Your task to perform on an android device: move a message to another label in the gmail app Image 0: 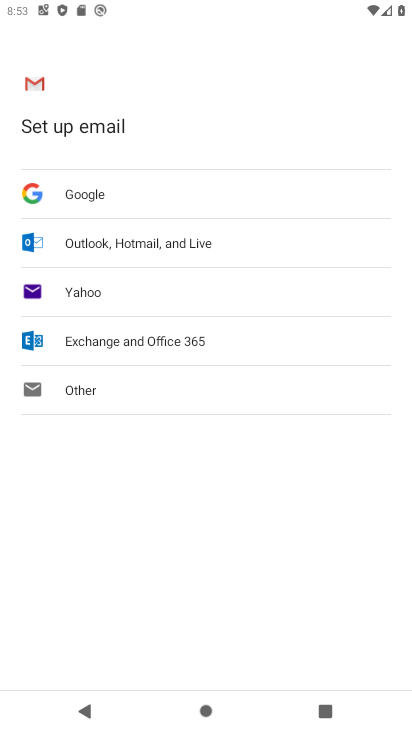
Step 0: press home button
Your task to perform on an android device: move a message to another label in the gmail app Image 1: 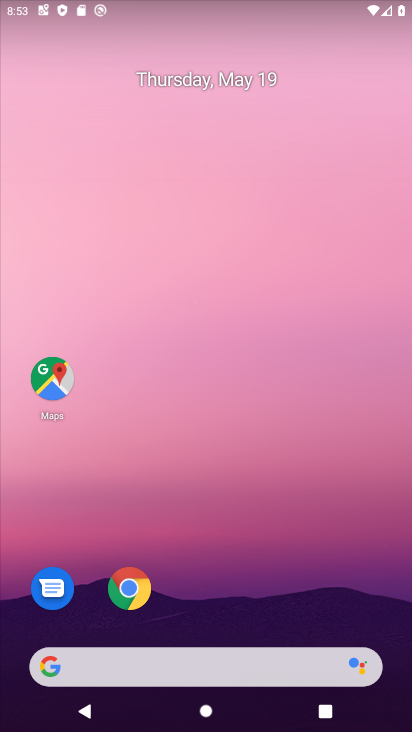
Step 1: drag from (193, 662) to (142, 178)
Your task to perform on an android device: move a message to another label in the gmail app Image 2: 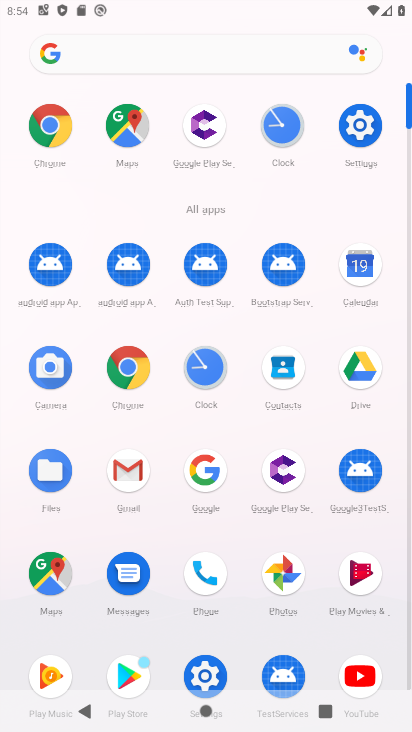
Step 2: click (128, 487)
Your task to perform on an android device: move a message to another label in the gmail app Image 3: 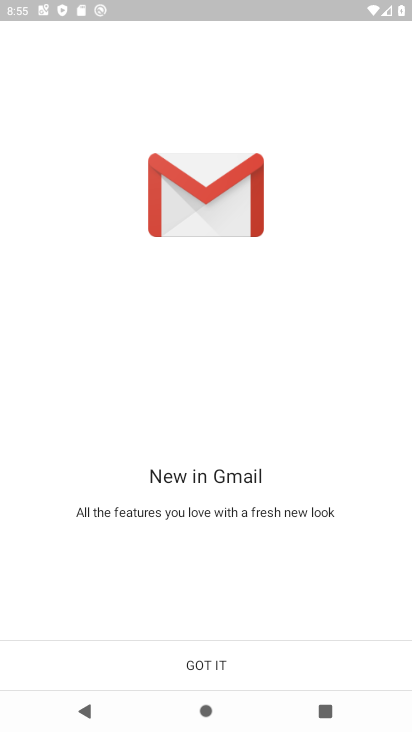
Step 3: click (194, 656)
Your task to perform on an android device: move a message to another label in the gmail app Image 4: 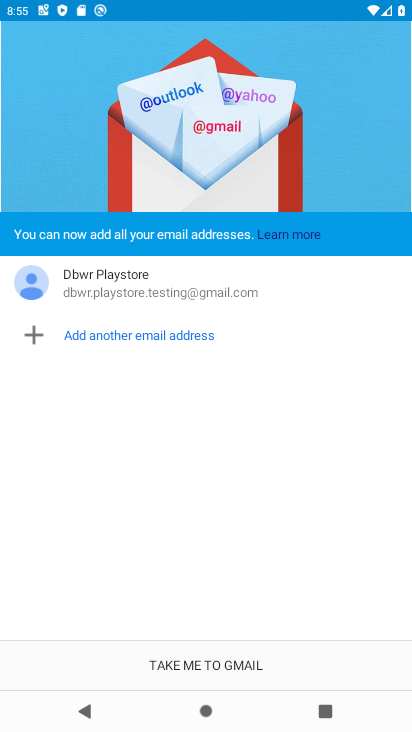
Step 4: click (219, 660)
Your task to perform on an android device: move a message to another label in the gmail app Image 5: 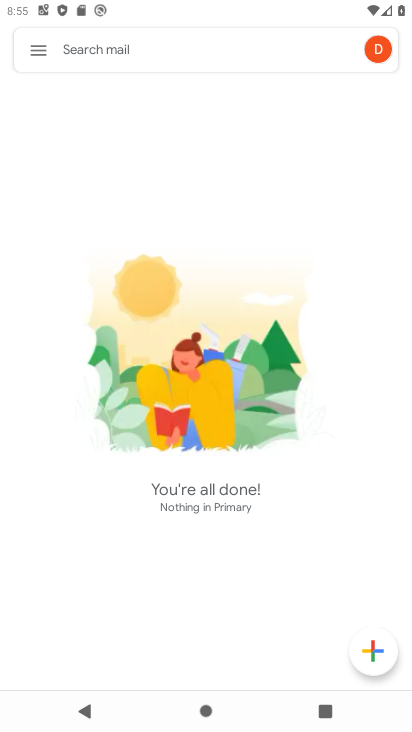
Step 5: task complete